Your task to perform on an android device: What is the recent news? Image 0: 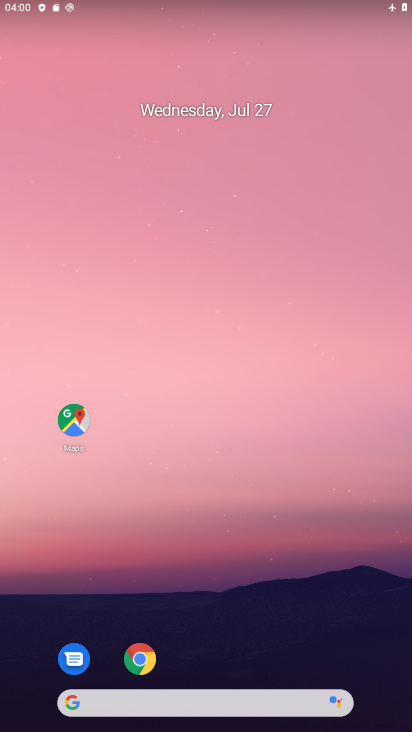
Step 0: click (147, 703)
Your task to perform on an android device: What is the recent news? Image 1: 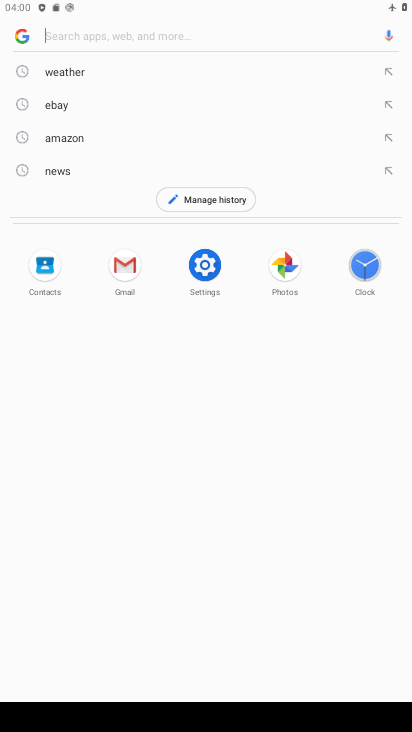
Step 1: click (89, 28)
Your task to perform on an android device: What is the recent news? Image 2: 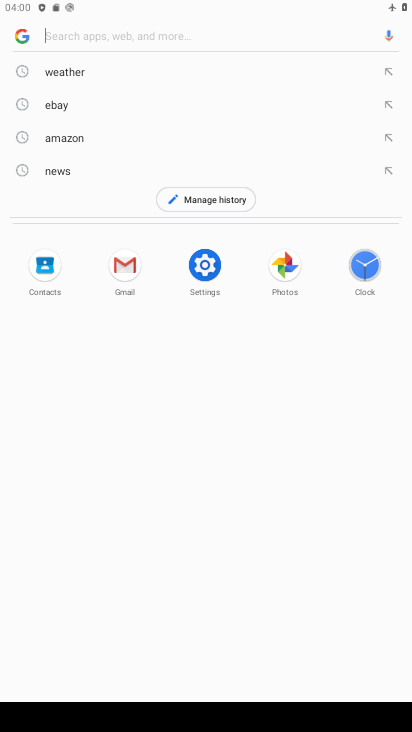
Step 2: type "recent news"
Your task to perform on an android device: What is the recent news? Image 3: 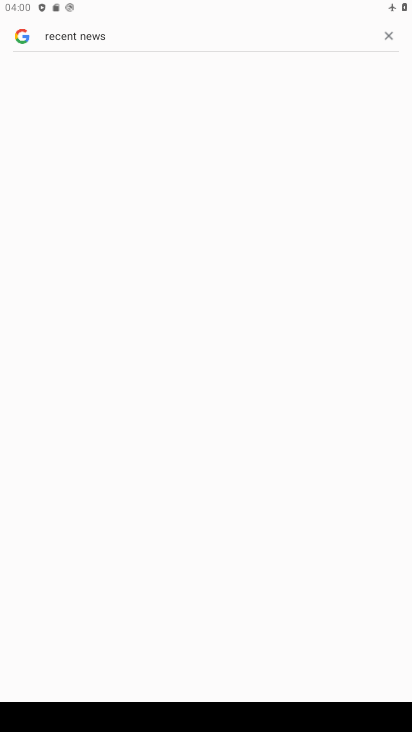
Step 3: task complete